Your task to perform on an android device: turn on bluetooth scan Image 0: 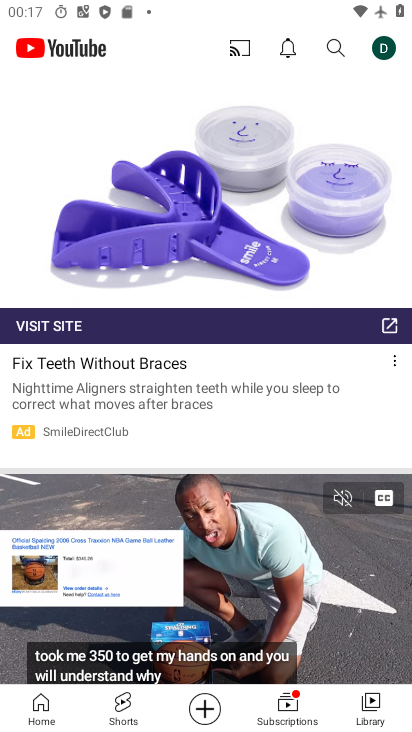
Step 0: press home button
Your task to perform on an android device: turn on bluetooth scan Image 1: 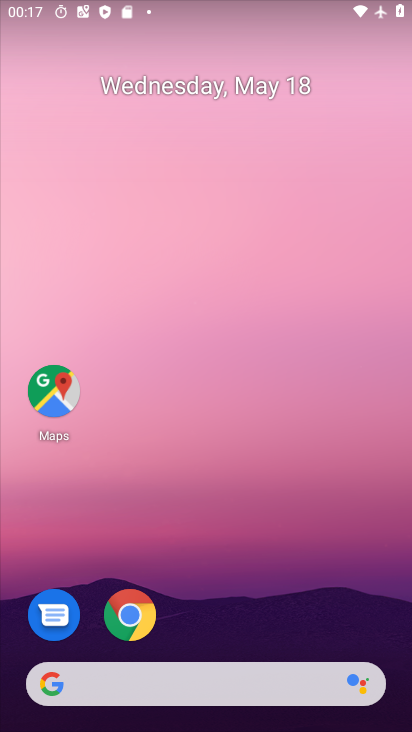
Step 1: drag from (221, 620) to (206, 239)
Your task to perform on an android device: turn on bluetooth scan Image 2: 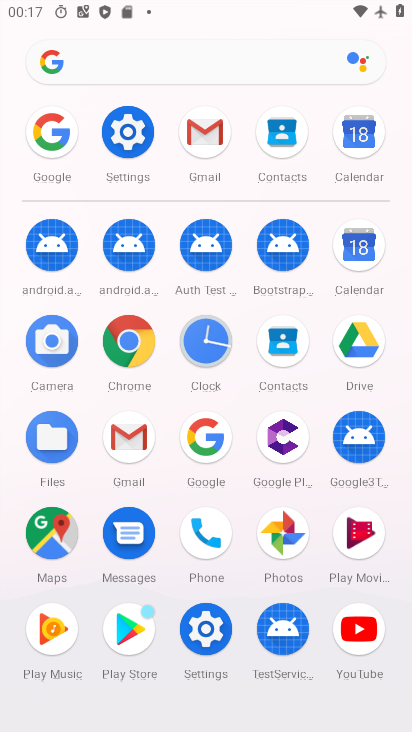
Step 2: click (132, 142)
Your task to perform on an android device: turn on bluetooth scan Image 3: 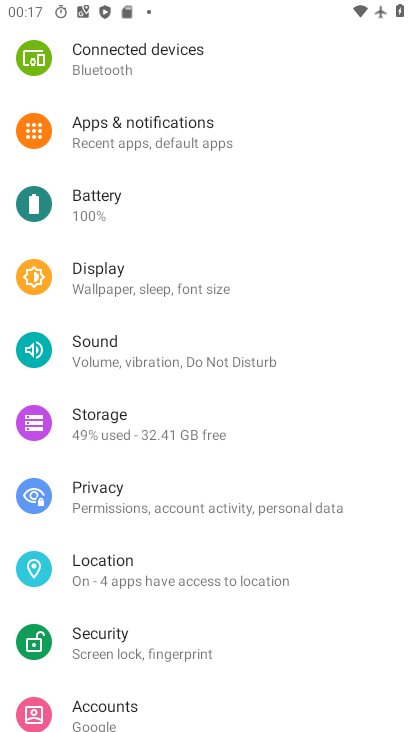
Step 3: click (115, 581)
Your task to perform on an android device: turn on bluetooth scan Image 4: 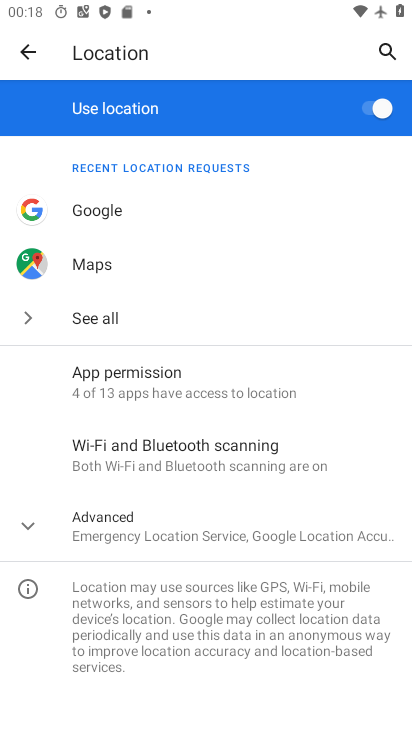
Step 4: click (160, 471)
Your task to perform on an android device: turn on bluetooth scan Image 5: 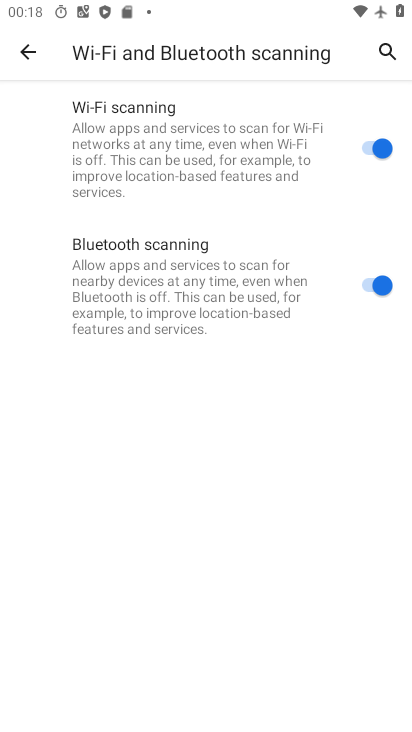
Step 5: task complete